Your task to perform on an android device: Open CNN.com Image 0: 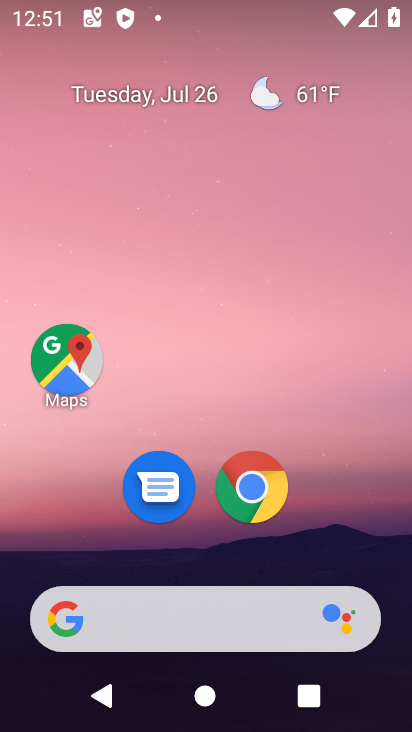
Step 0: click (232, 488)
Your task to perform on an android device: Open CNN.com Image 1: 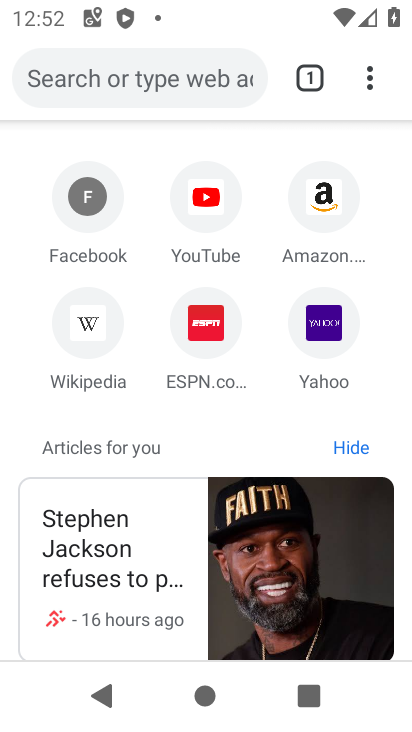
Step 1: click (133, 76)
Your task to perform on an android device: Open CNN.com Image 2: 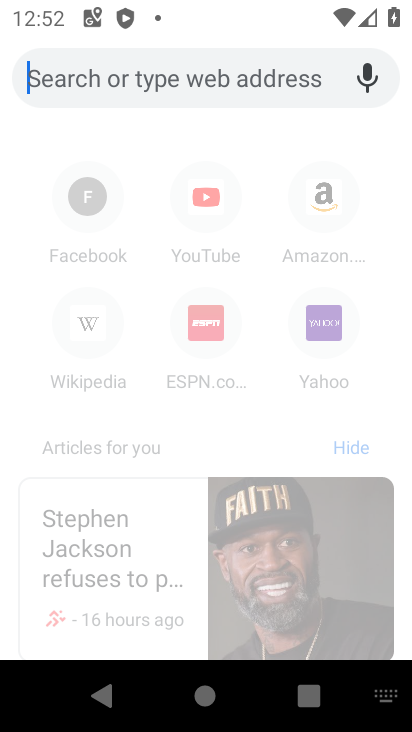
Step 2: type "cnn.com"
Your task to perform on an android device: Open CNN.com Image 3: 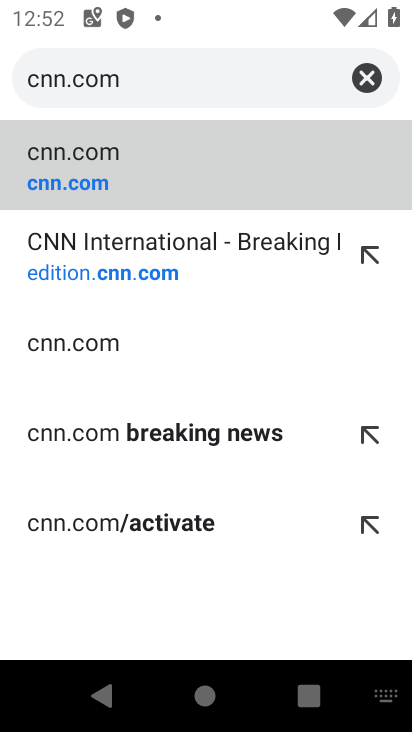
Step 3: click (60, 166)
Your task to perform on an android device: Open CNN.com Image 4: 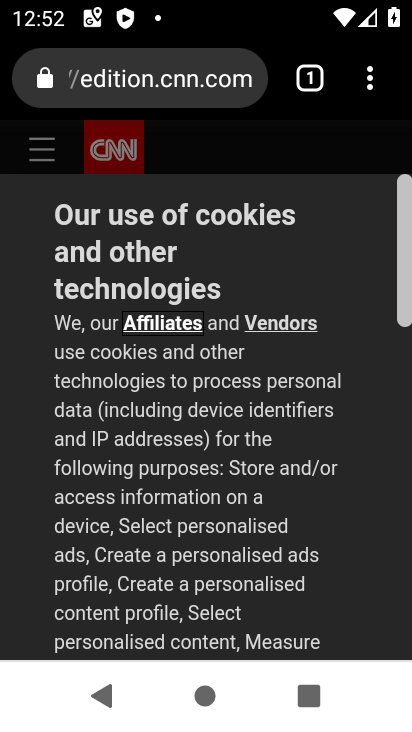
Step 4: task complete